Your task to perform on an android device: Go to Android settings Image 0: 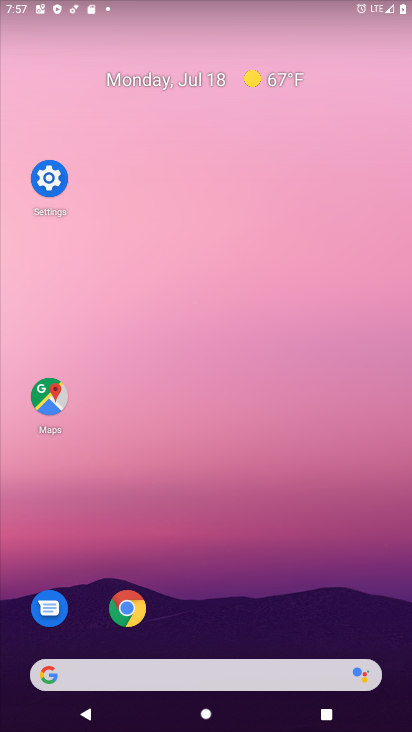
Step 0: click (54, 168)
Your task to perform on an android device: Go to Android settings Image 1: 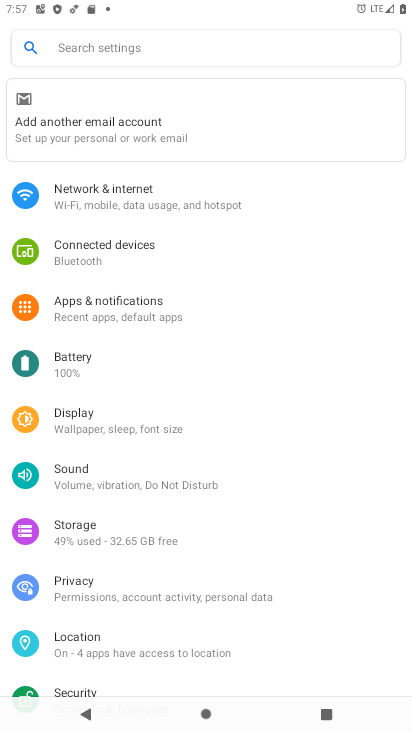
Step 1: task complete